Your task to perform on an android device: Go to Wikipedia Image 0: 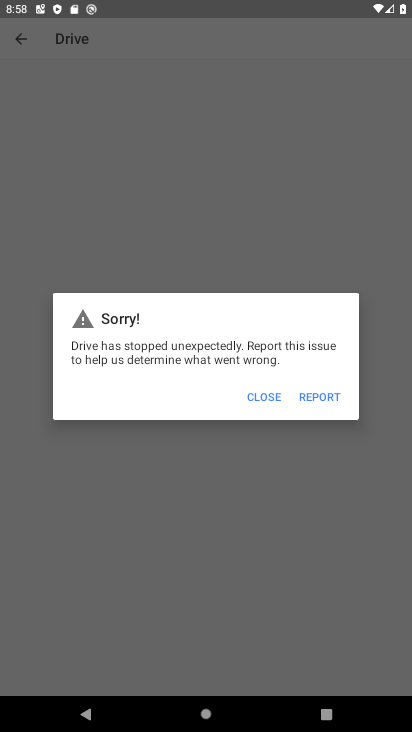
Step 0: press home button
Your task to perform on an android device: Go to Wikipedia Image 1: 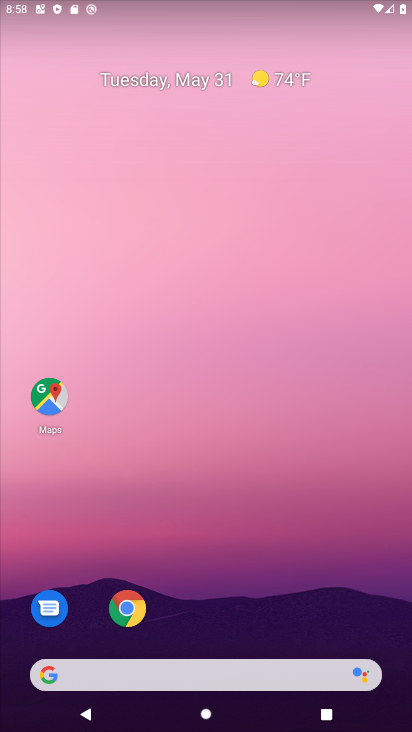
Step 1: click (139, 617)
Your task to perform on an android device: Go to Wikipedia Image 2: 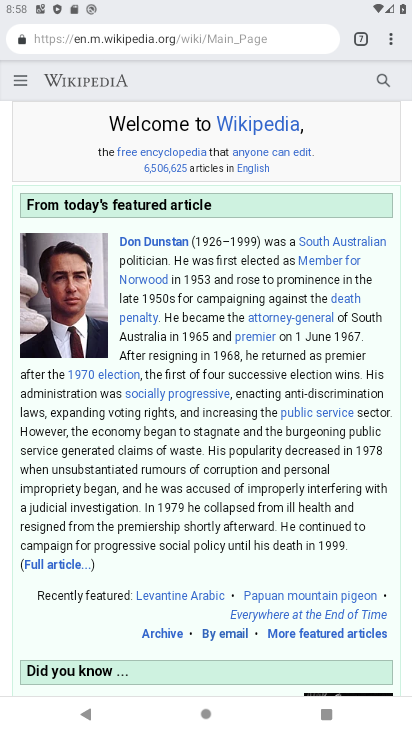
Step 2: task complete